Your task to perform on an android device: Search for sushi restaurants on Maps Image 0: 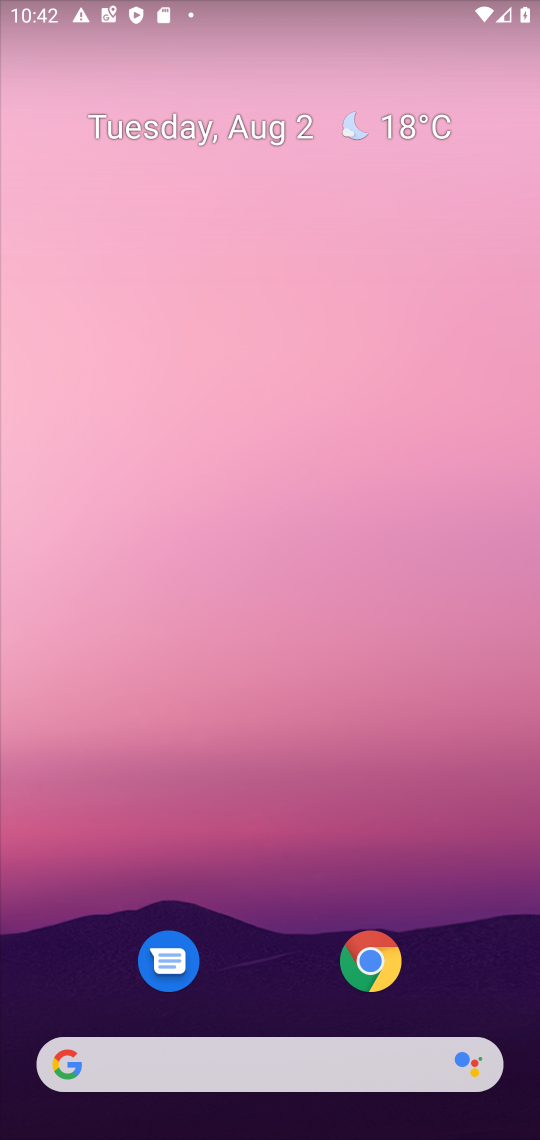
Step 0: press home button
Your task to perform on an android device: Search for sushi restaurants on Maps Image 1: 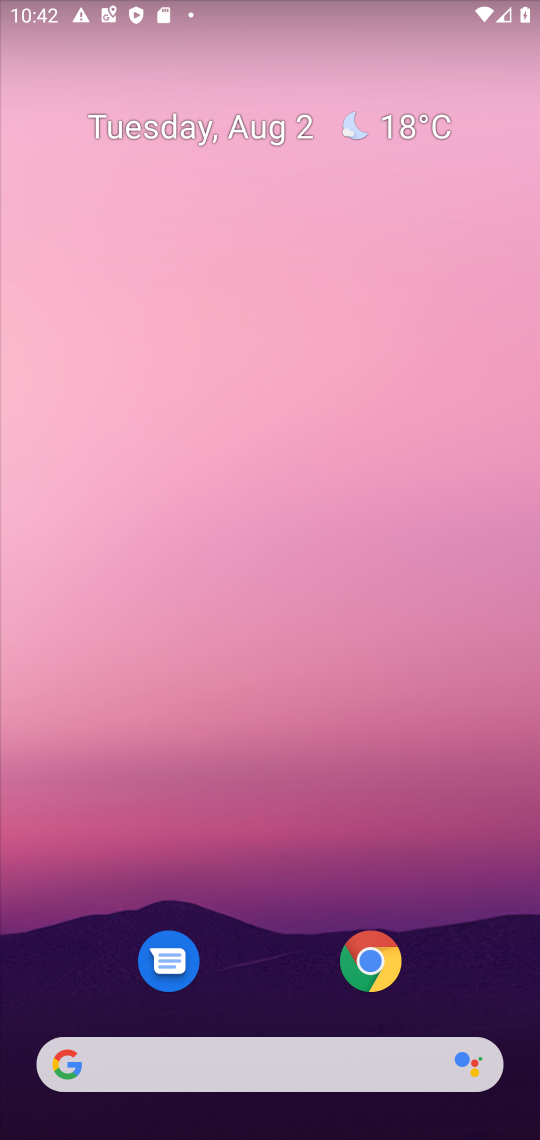
Step 1: drag from (341, 822) to (392, 253)
Your task to perform on an android device: Search for sushi restaurants on Maps Image 2: 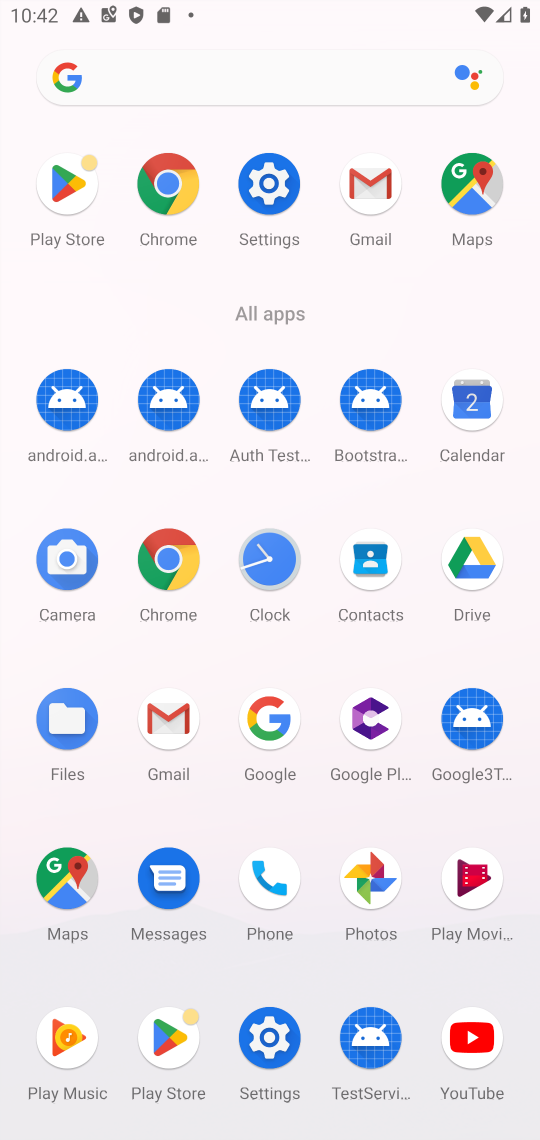
Step 2: click (90, 878)
Your task to perform on an android device: Search for sushi restaurants on Maps Image 3: 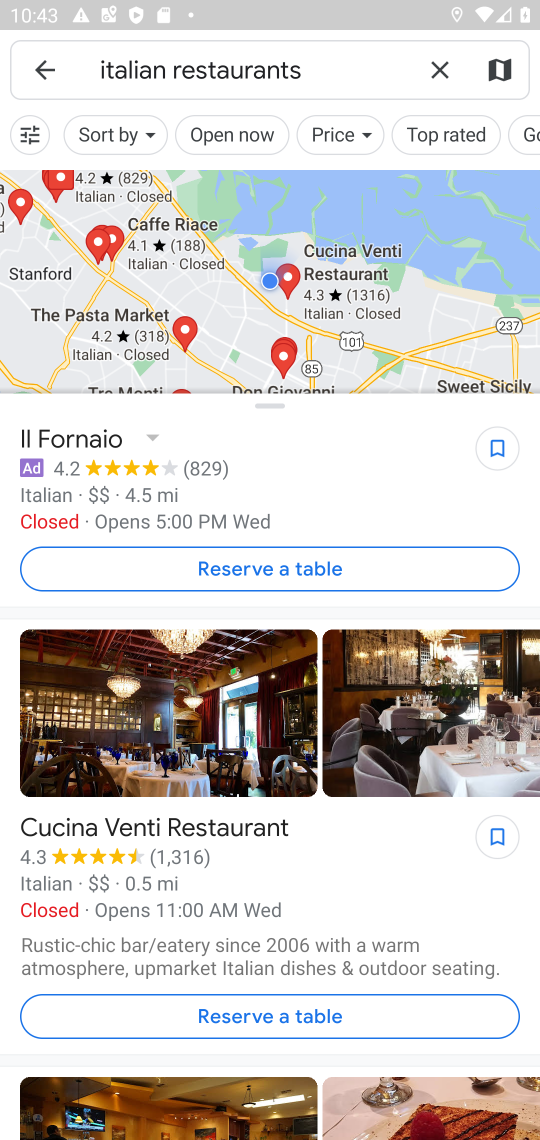
Step 3: click (430, 82)
Your task to perform on an android device: Search for sushi restaurants on Maps Image 4: 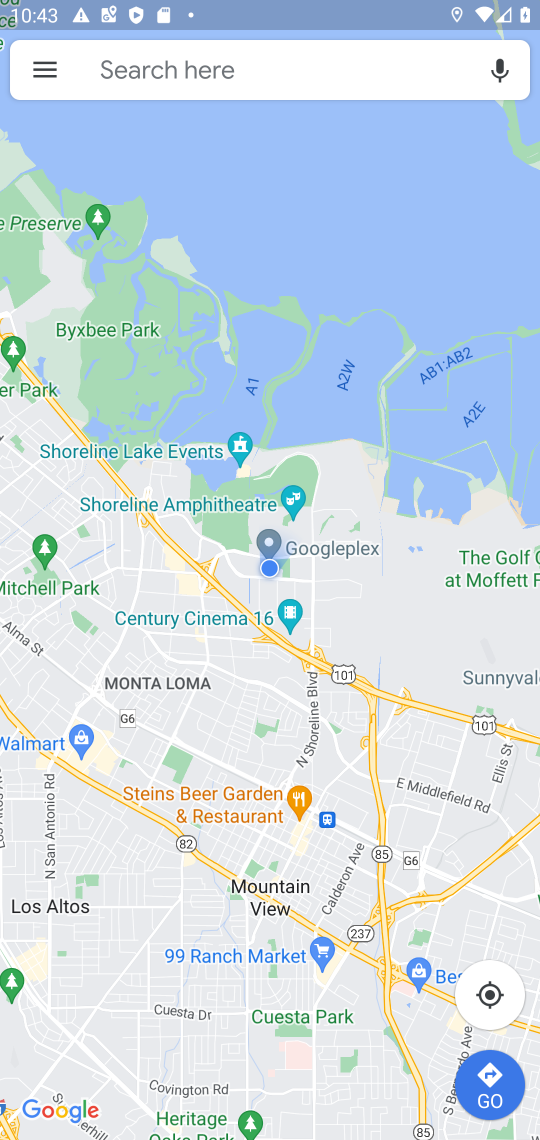
Step 4: click (206, 76)
Your task to perform on an android device: Search for sushi restaurants on Maps Image 5: 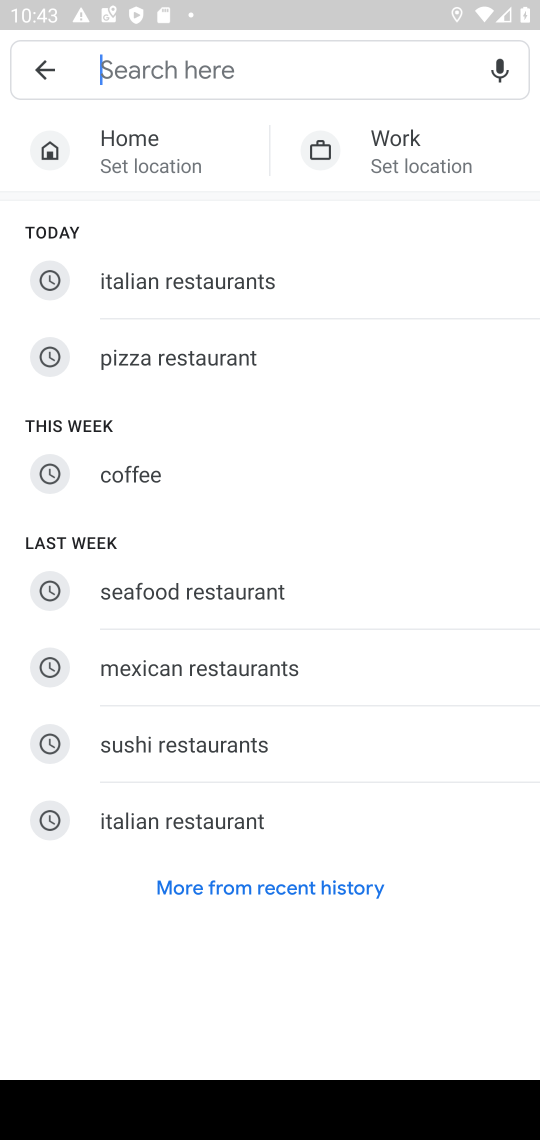
Step 5: type " sushi restaurants"
Your task to perform on an android device: Search for sushi restaurants on Maps Image 6: 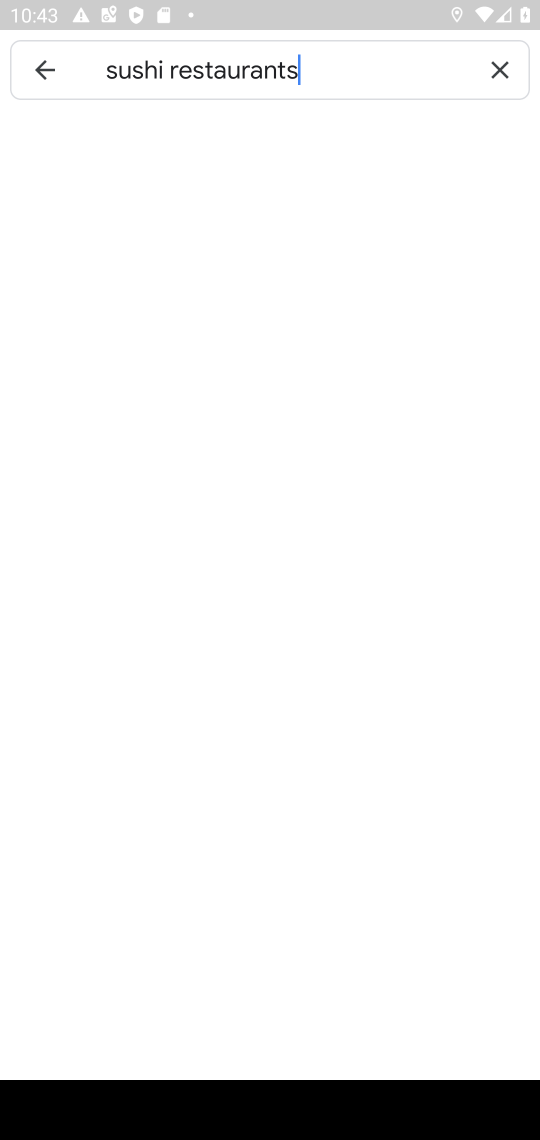
Step 6: type ""
Your task to perform on an android device: Search for sushi restaurants on Maps Image 7: 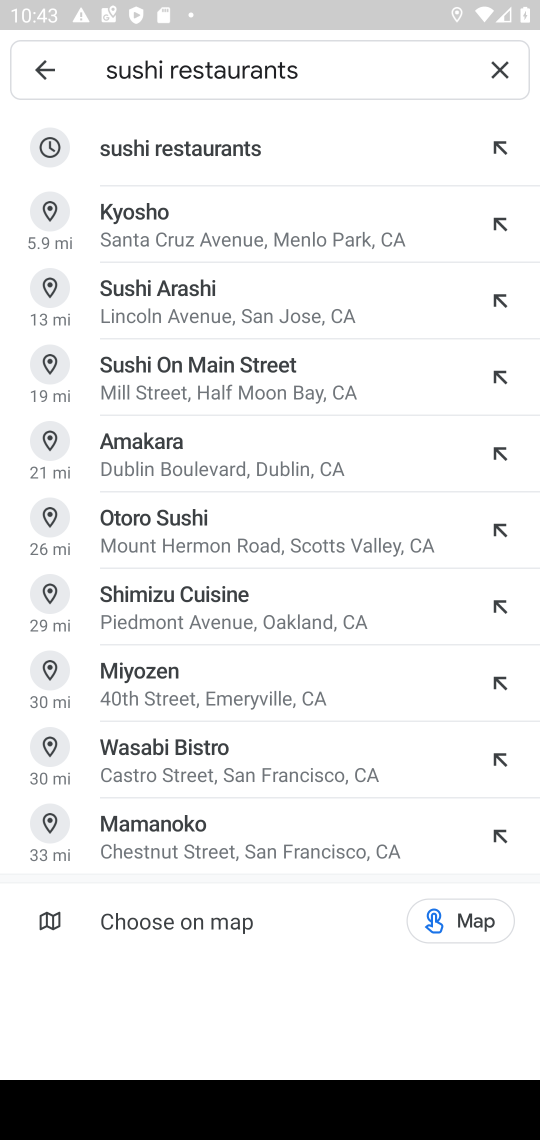
Step 7: click (185, 123)
Your task to perform on an android device: Search for sushi restaurants on Maps Image 8: 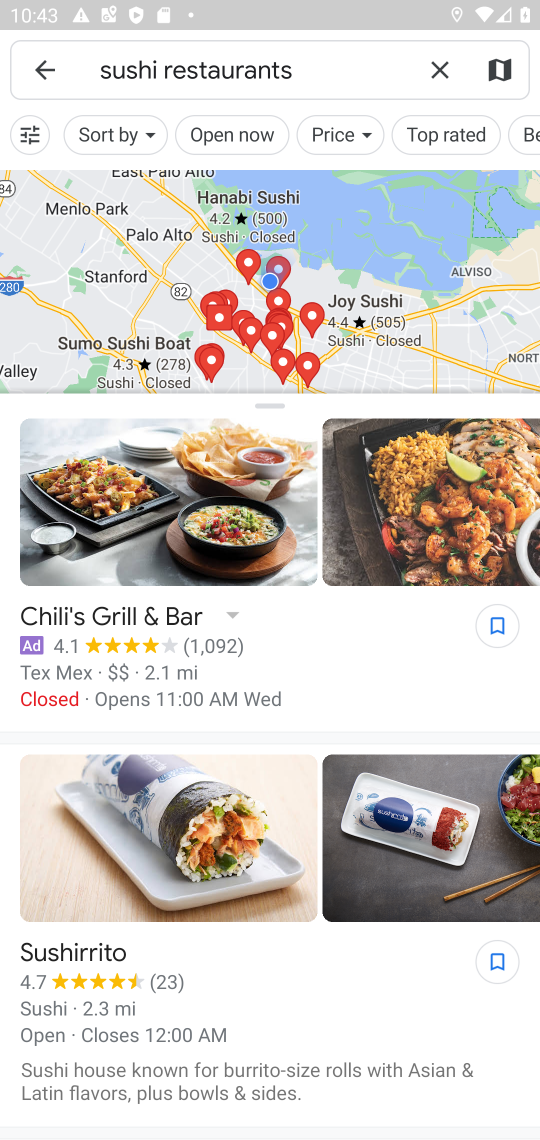
Step 8: task complete